Your task to perform on an android device: Add "jbl charge 4" to the cart on newegg Image 0: 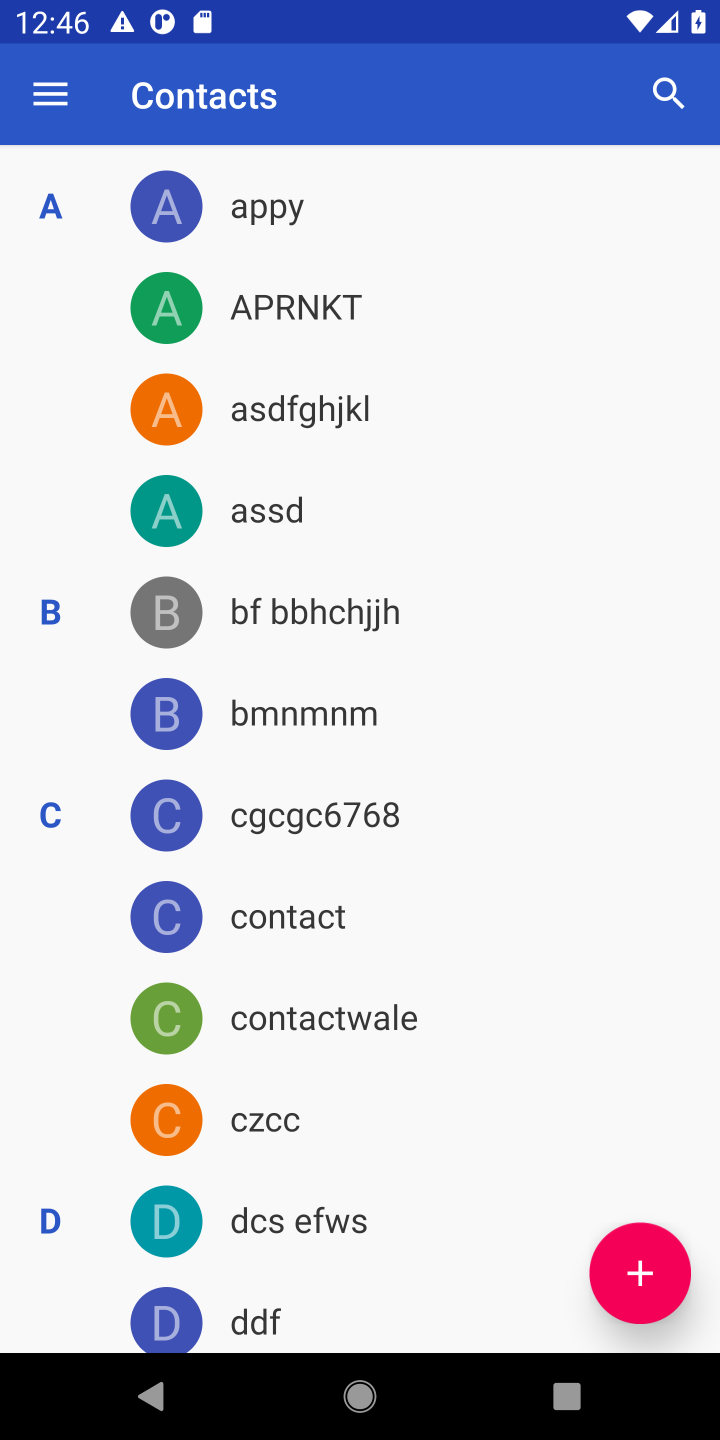
Step 0: press home button
Your task to perform on an android device: Add "jbl charge 4" to the cart on newegg Image 1: 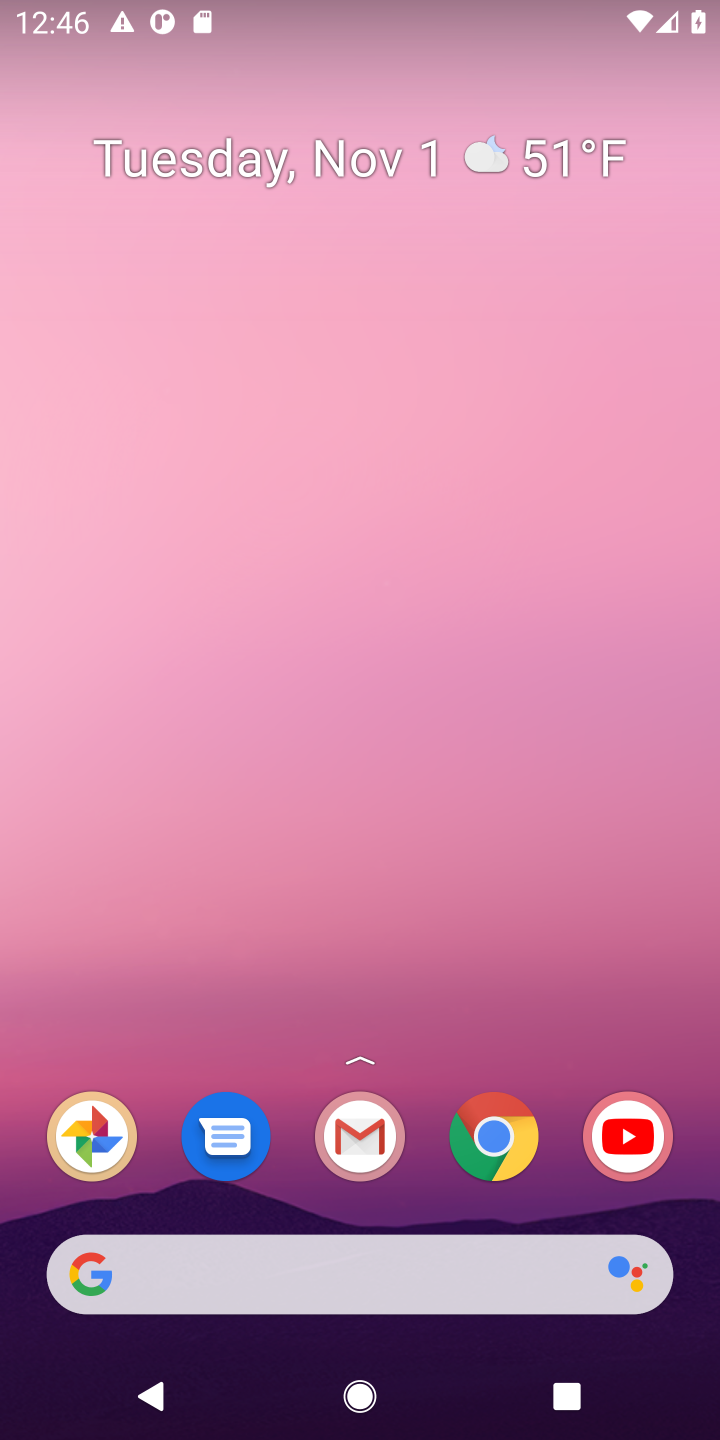
Step 1: click (131, 1273)
Your task to perform on an android device: Add "jbl charge 4" to the cart on newegg Image 2: 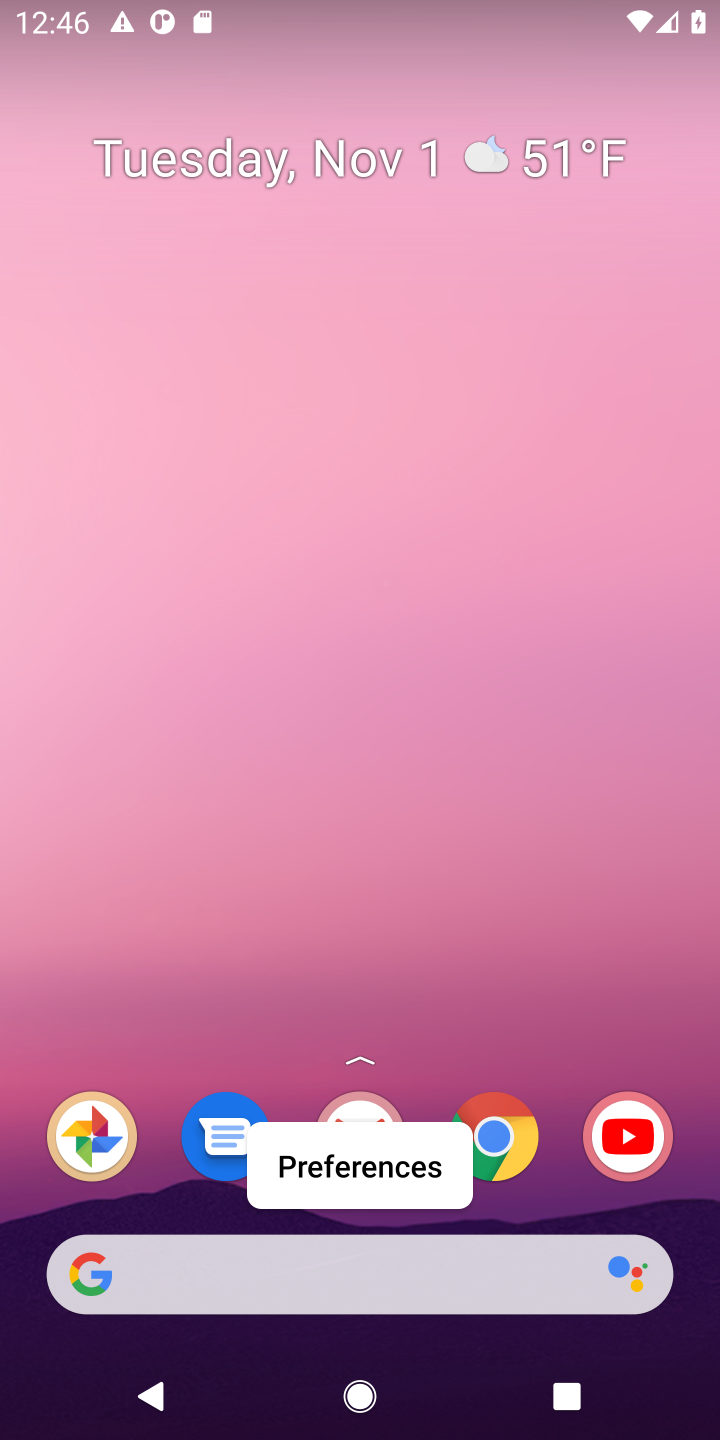
Step 2: click (131, 1273)
Your task to perform on an android device: Add "jbl charge 4" to the cart on newegg Image 3: 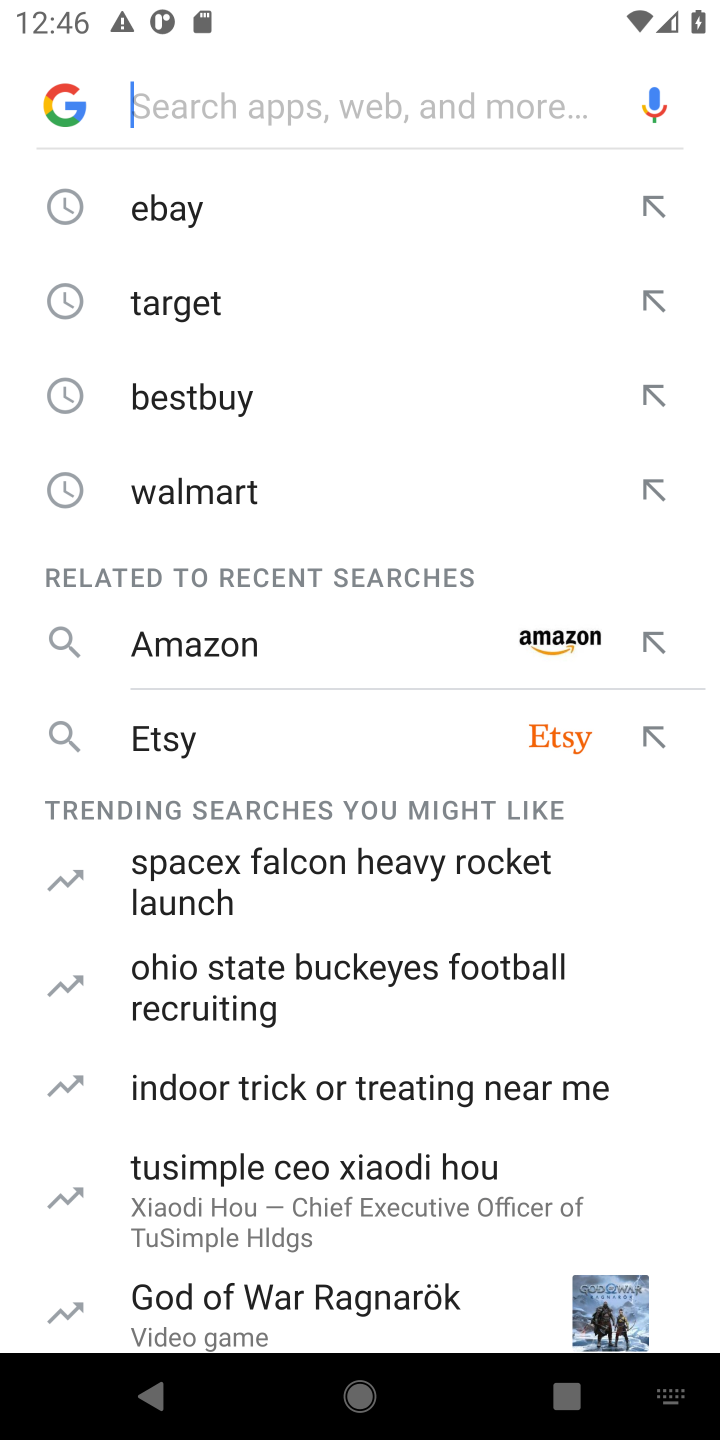
Step 3: type "newegg"
Your task to perform on an android device: Add "jbl charge 4" to the cart on newegg Image 4: 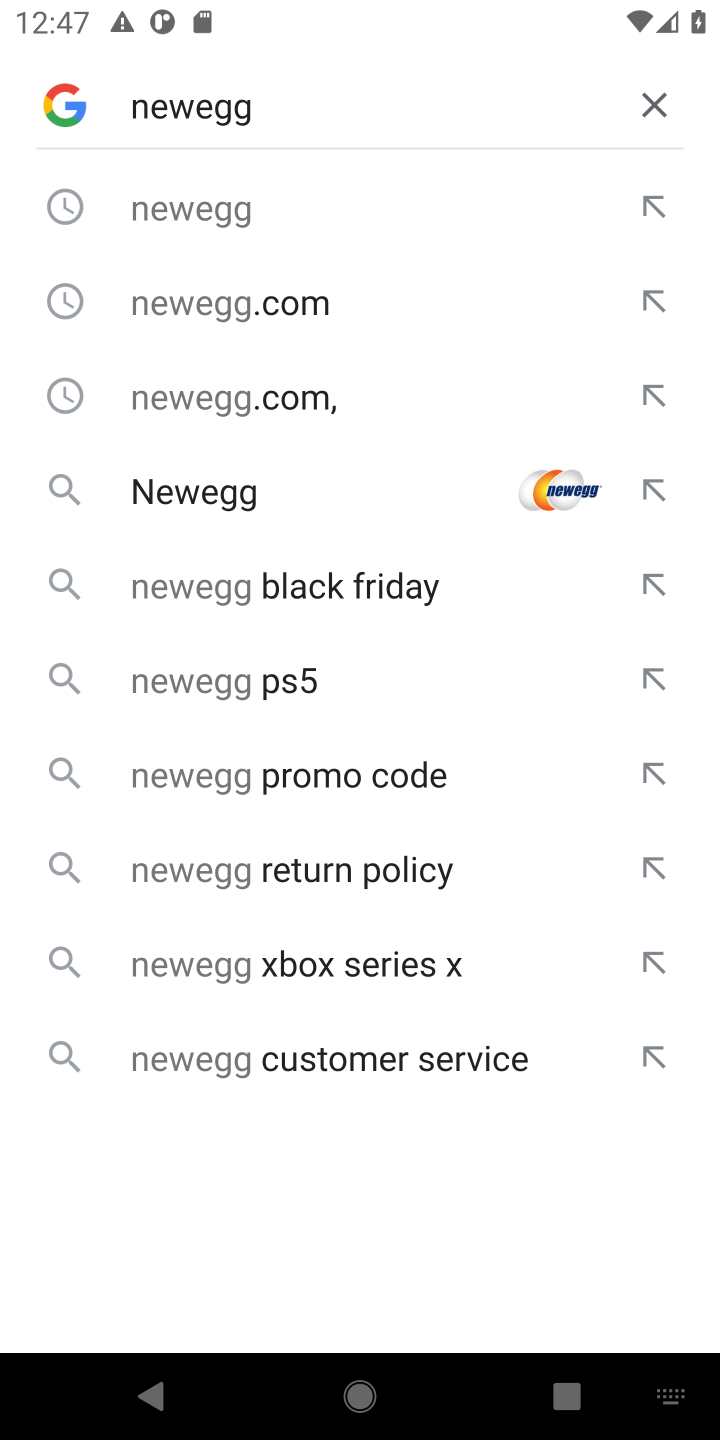
Step 4: click (229, 213)
Your task to perform on an android device: Add "jbl charge 4" to the cart on newegg Image 5: 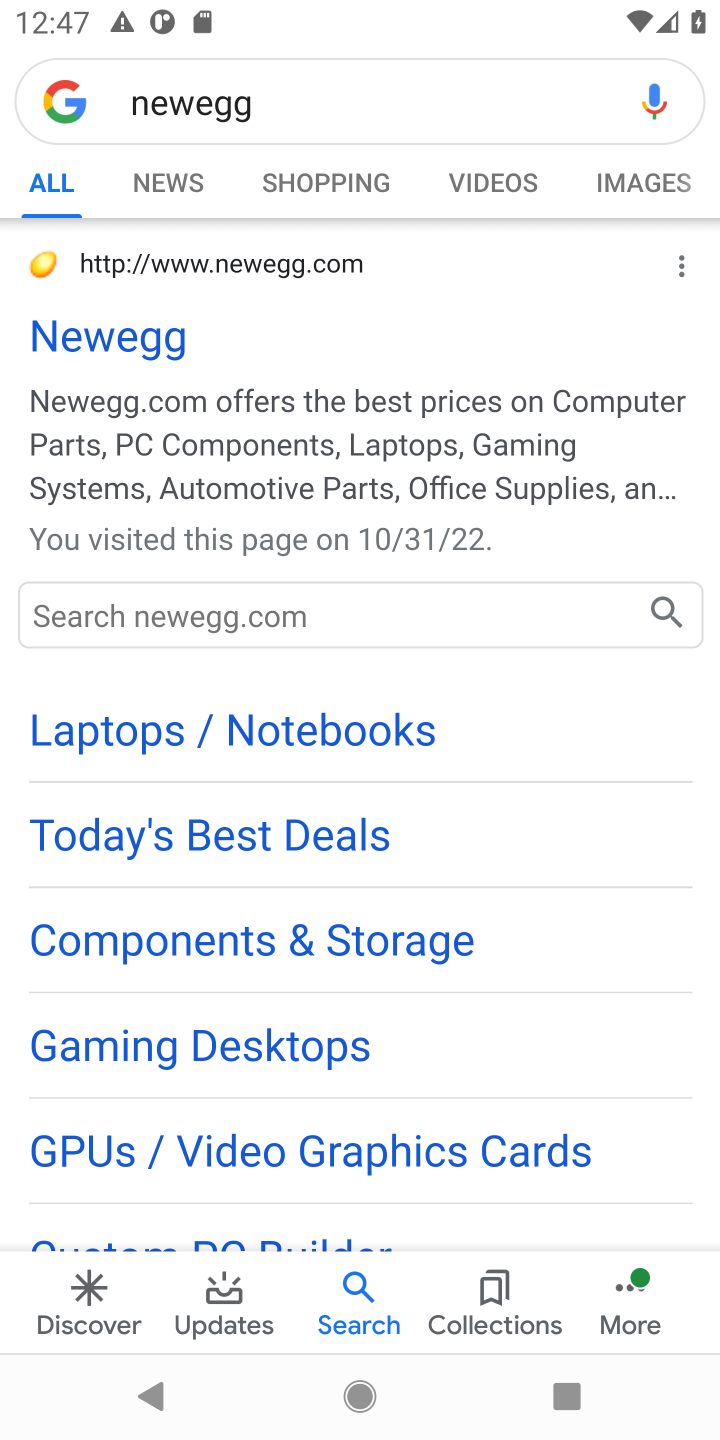
Step 5: click (124, 340)
Your task to perform on an android device: Add "jbl charge 4" to the cart on newegg Image 6: 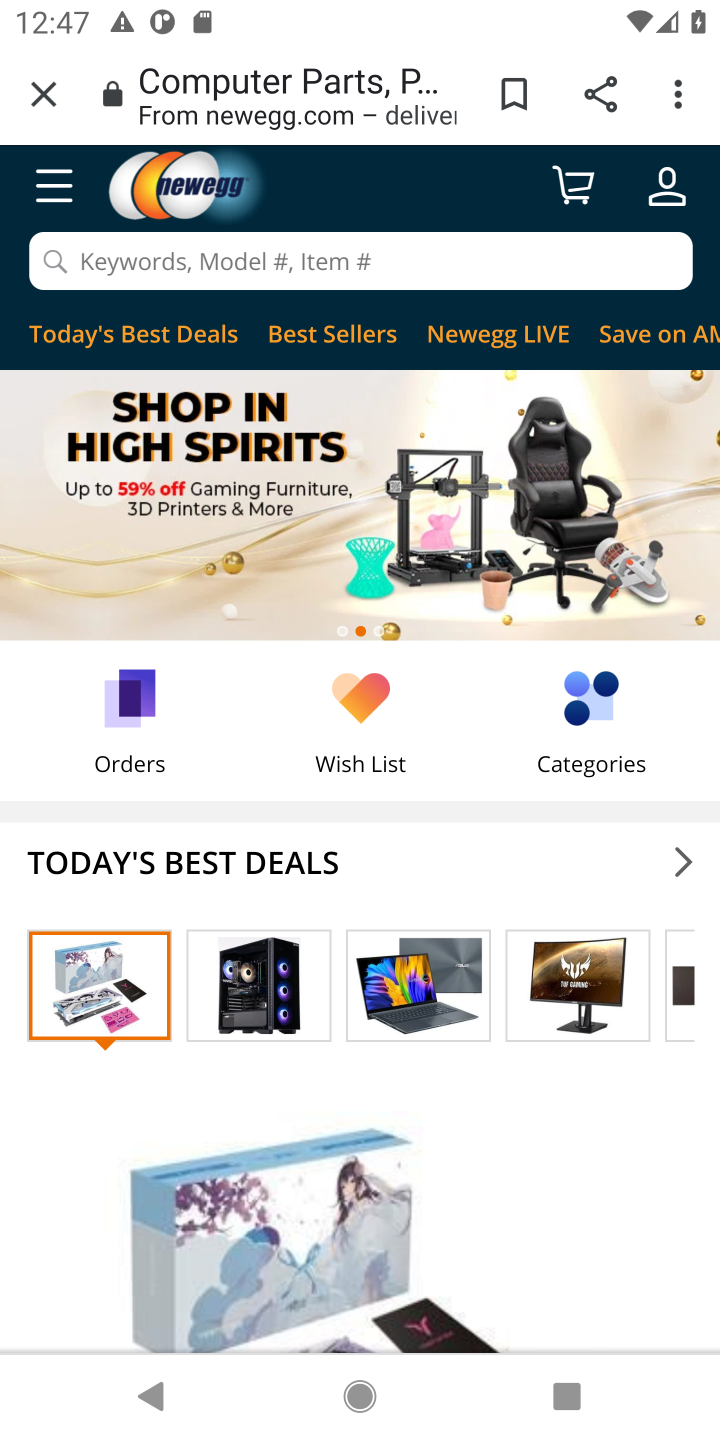
Step 6: click (91, 263)
Your task to perform on an android device: Add "jbl charge 4" to the cart on newegg Image 7: 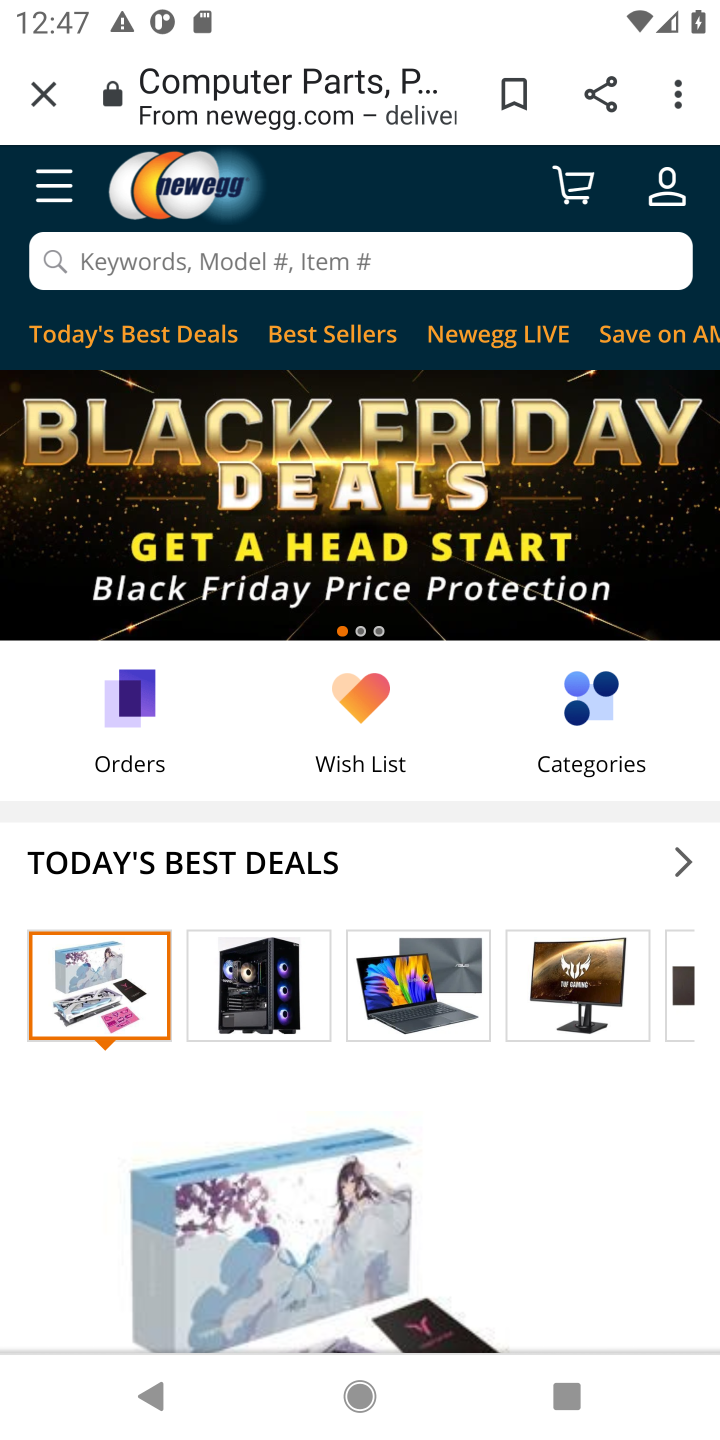
Step 7: click (75, 252)
Your task to perform on an android device: Add "jbl charge 4" to the cart on newegg Image 8: 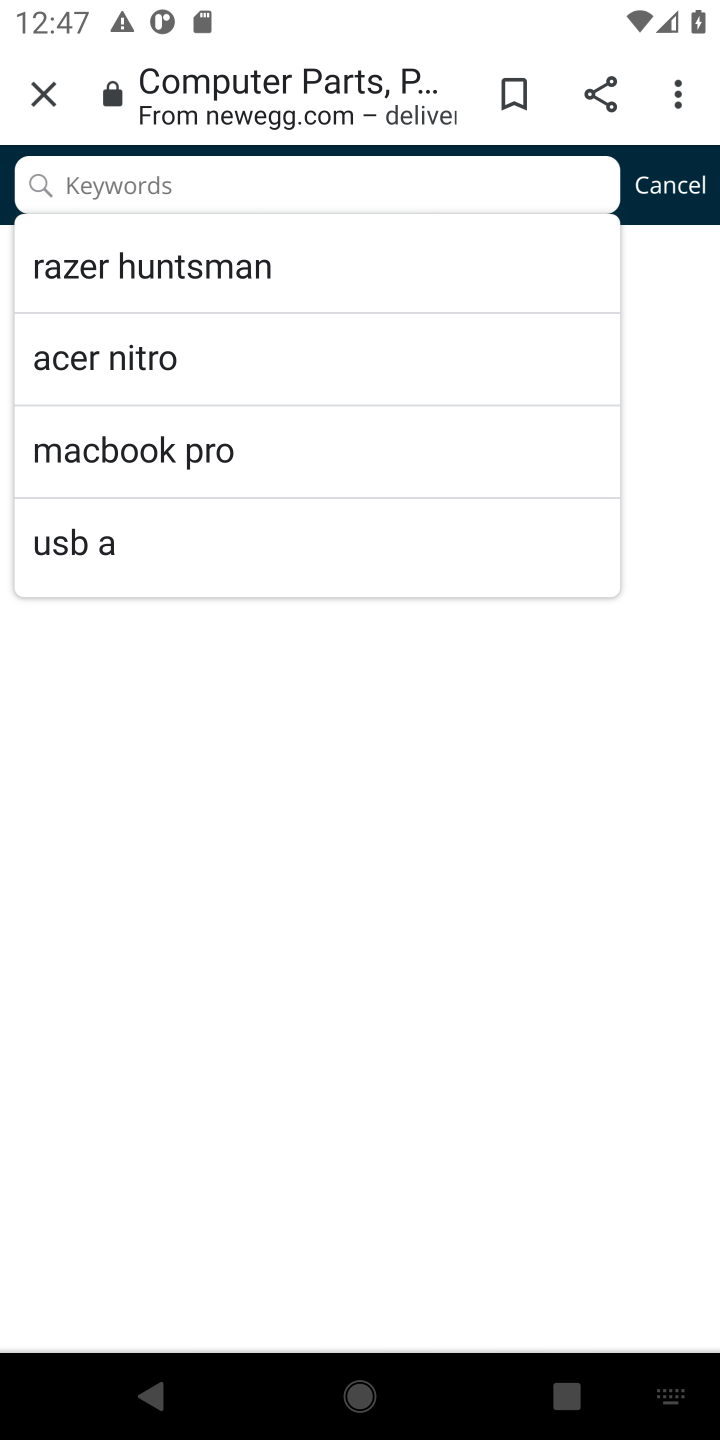
Step 8: type "jbl charge 4"
Your task to perform on an android device: Add "jbl charge 4" to the cart on newegg Image 9: 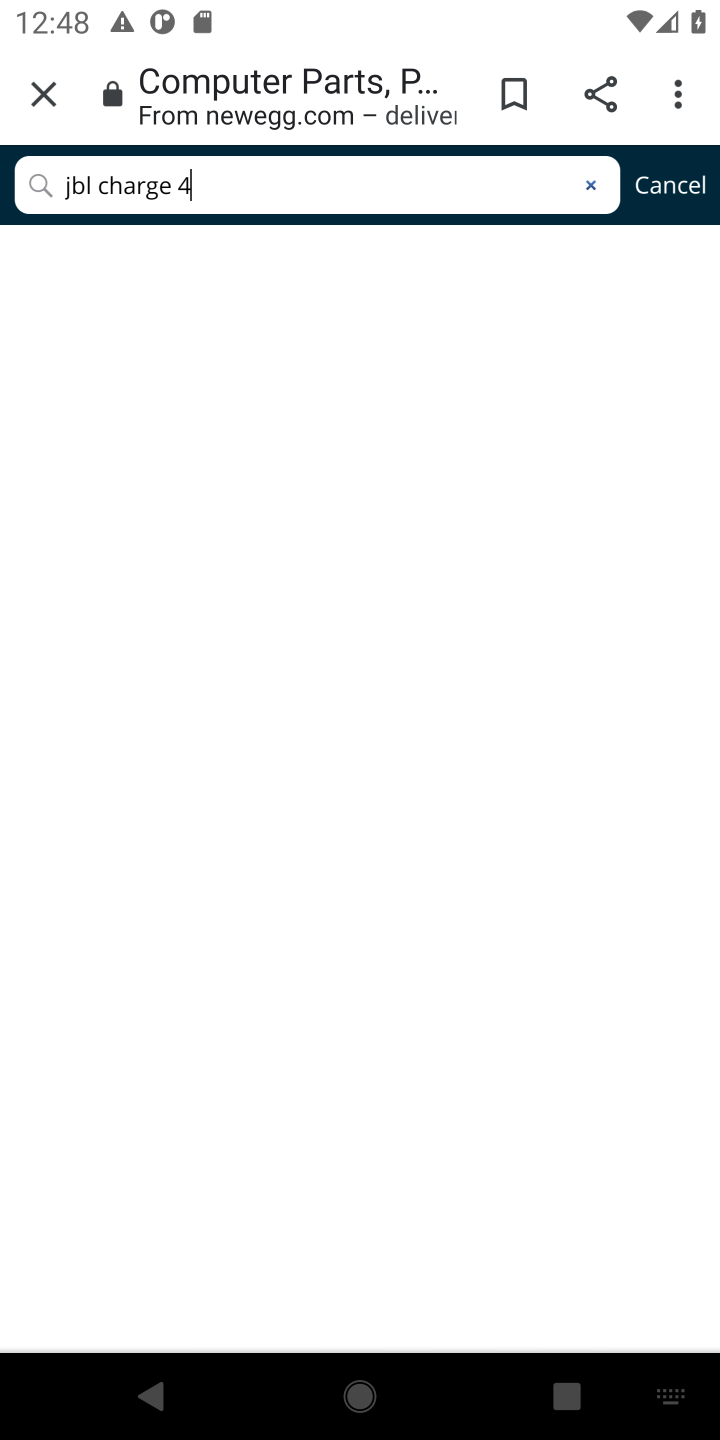
Step 9: press enter
Your task to perform on an android device: Add "jbl charge 4" to the cart on newegg Image 10: 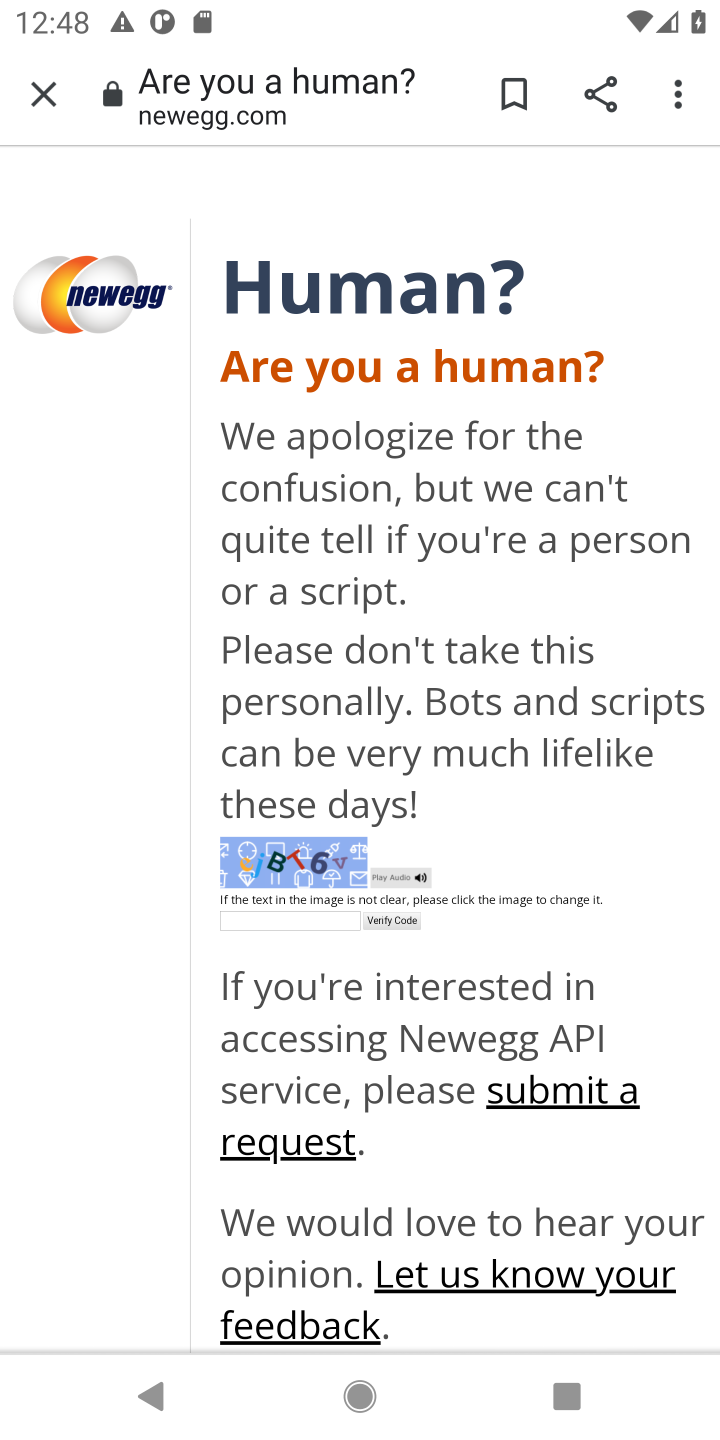
Step 10: task complete